Your task to perform on an android device: Go to wifi settings Image 0: 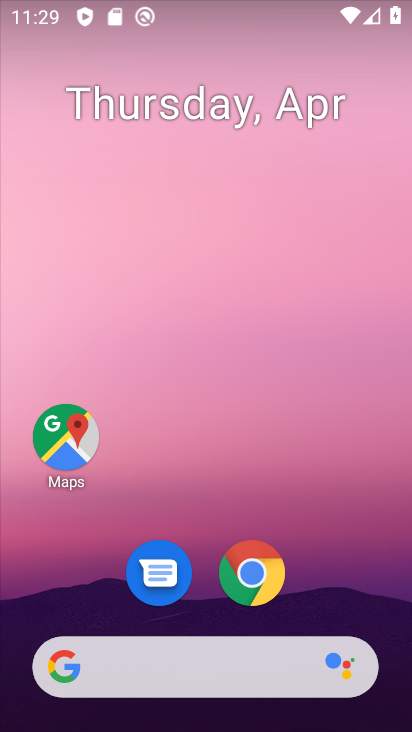
Step 0: drag from (317, 608) to (258, 165)
Your task to perform on an android device: Go to wifi settings Image 1: 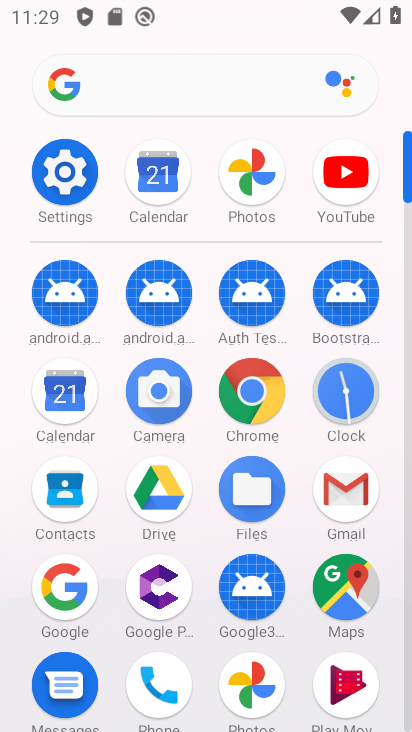
Step 1: click (73, 185)
Your task to perform on an android device: Go to wifi settings Image 2: 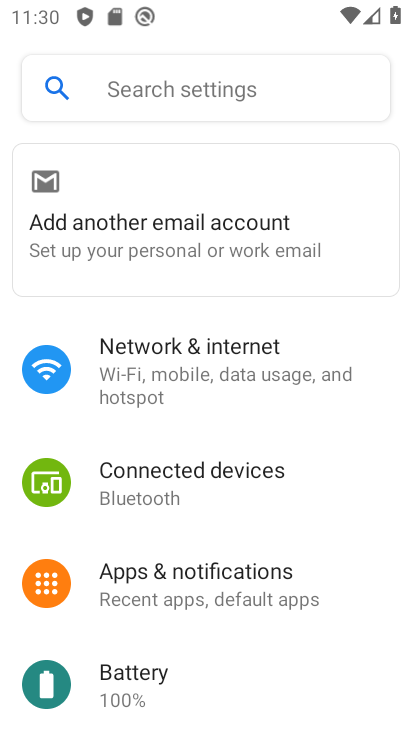
Step 2: click (197, 373)
Your task to perform on an android device: Go to wifi settings Image 3: 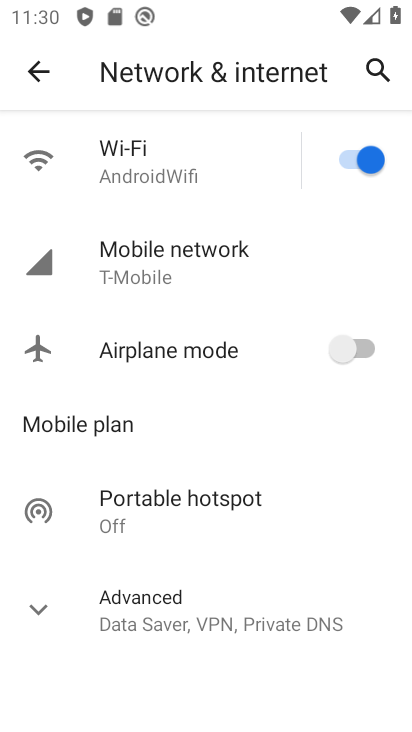
Step 3: click (180, 171)
Your task to perform on an android device: Go to wifi settings Image 4: 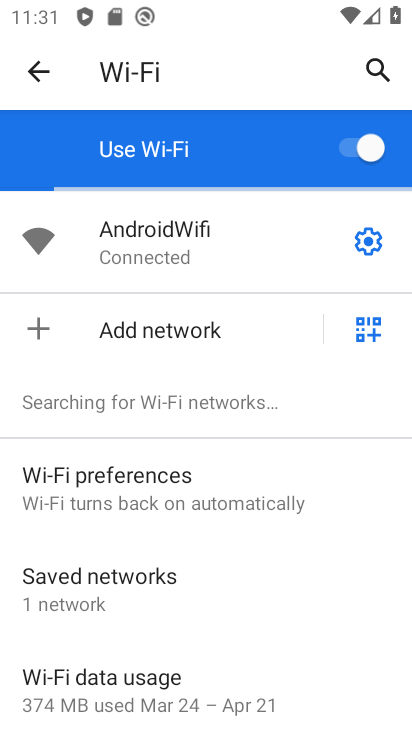
Step 4: task complete